Your task to perform on an android device: set the timer Image 0: 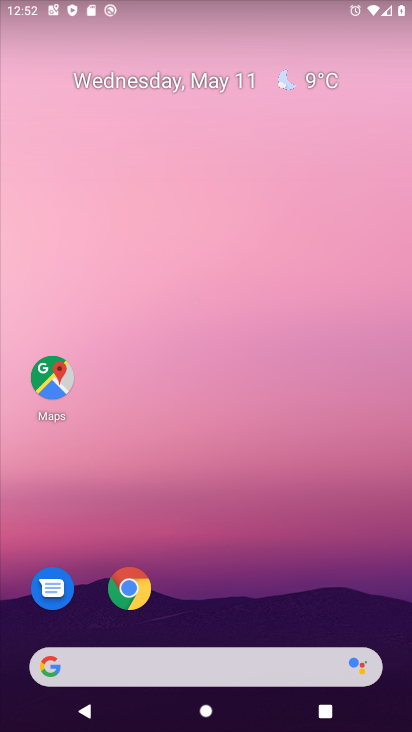
Step 0: drag from (305, 470) to (311, 5)
Your task to perform on an android device: set the timer Image 1: 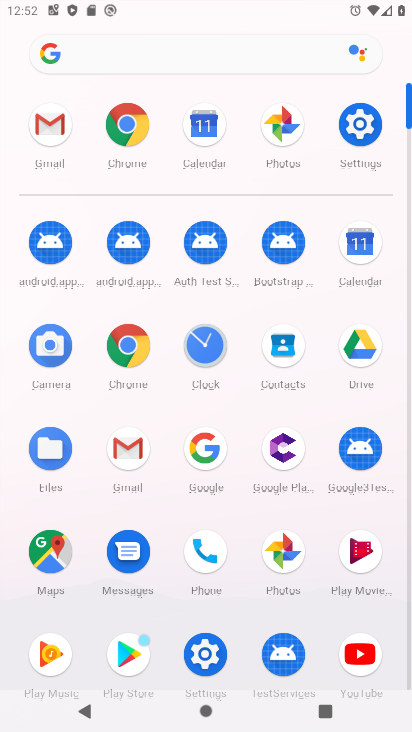
Step 1: click (197, 360)
Your task to perform on an android device: set the timer Image 2: 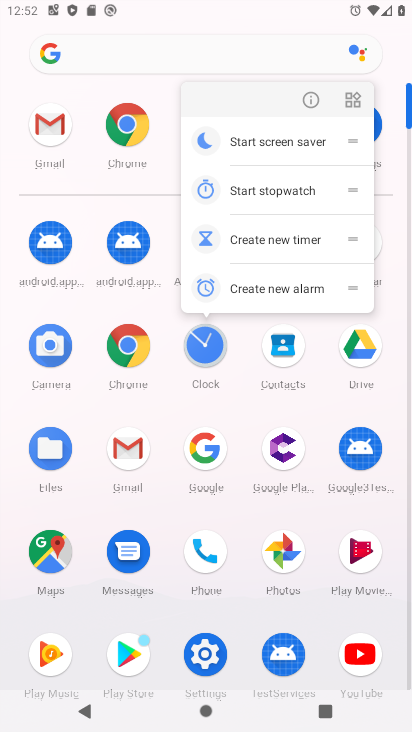
Step 2: click (200, 354)
Your task to perform on an android device: set the timer Image 3: 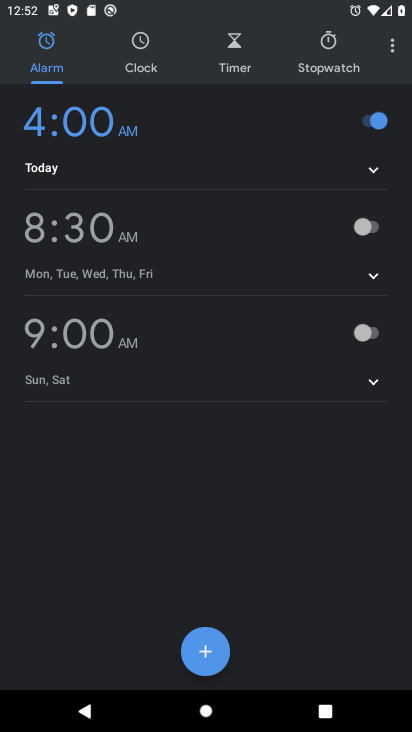
Step 3: click (240, 66)
Your task to perform on an android device: set the timer Image 4: 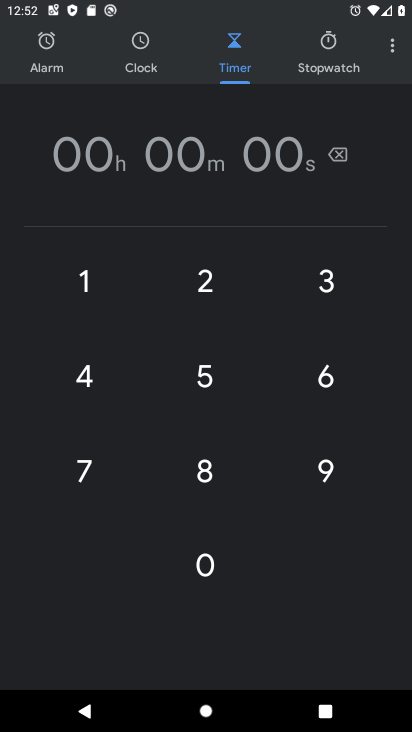
Step 4: click (204, 287)
Your task to perform on an android device: set the timer Image 5: 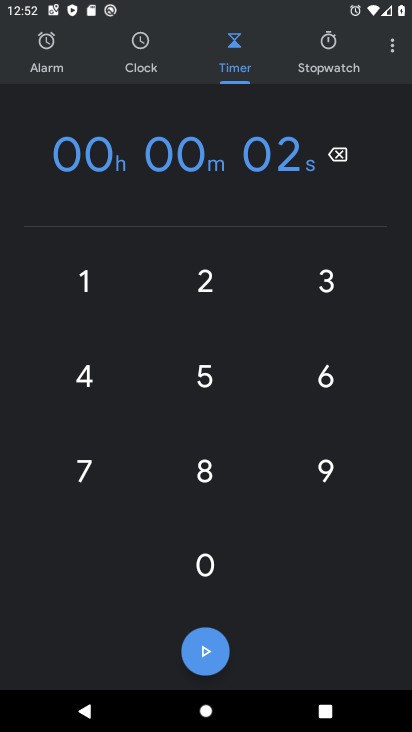
Step 5: click (200, 381)
Your task to perform on an android device: set the timer Image 6: 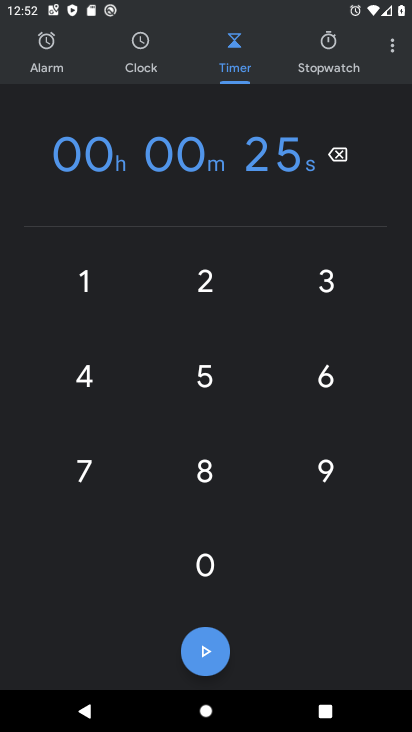
Step 6: click (208, 568)
Your task to perform on an android device: set the timer Image 7: 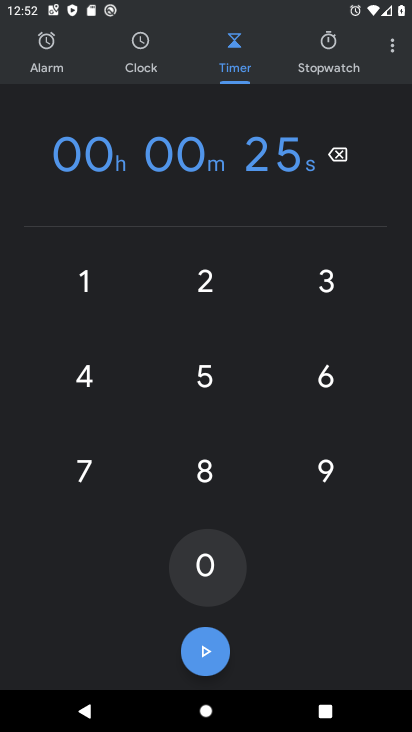
Step 7: click (208, 567)
Your task to perform on an android device: set the timer Image 8: 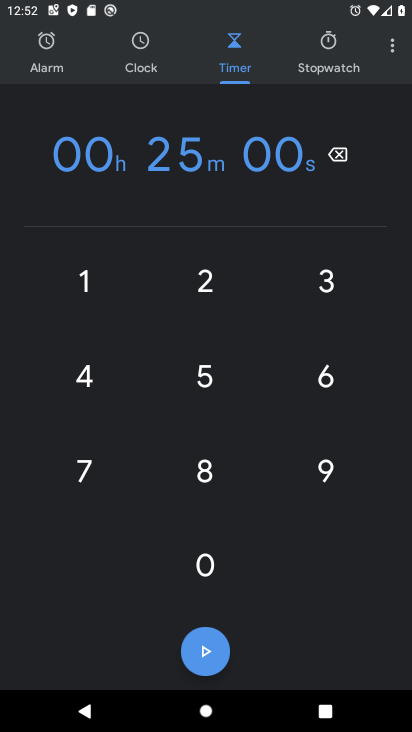
Step 8: click (231, 635)
Your task to perform on an android device: set the timer Image 9: 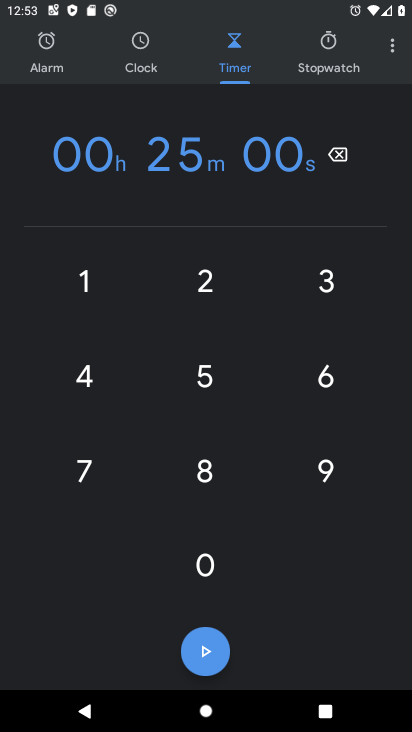
Step 9: click (213, 657)
Your task to perform on an android device: set the timer Image 10: 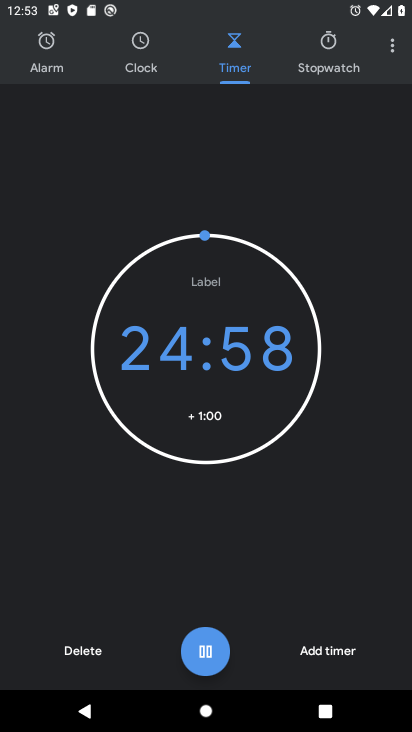
Step 10: task complete